Your task to perform on an android device: Go to Google maps Image 0: 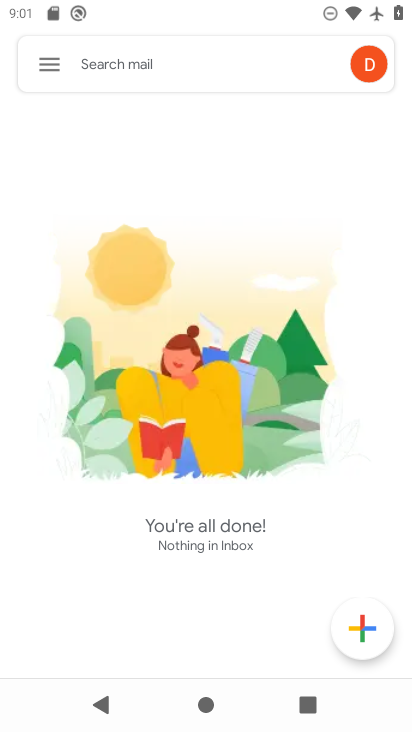
Step 0: press home button
Your task to perform on an android device: Go to Google maps Image 1: 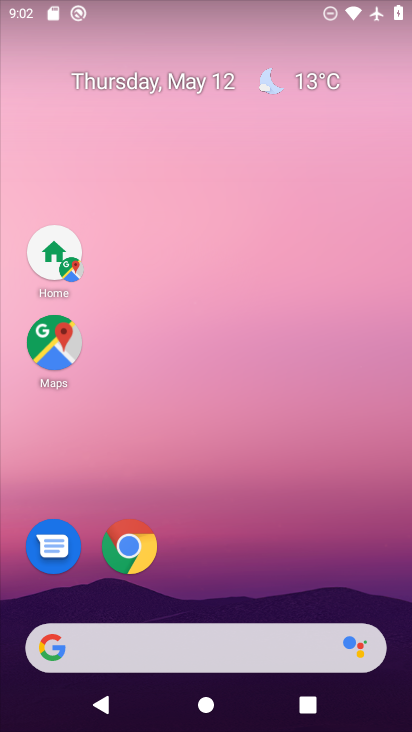
Step 1: click (56, 352)
Your task to perform on an android device: Go to Google maps Image 2: 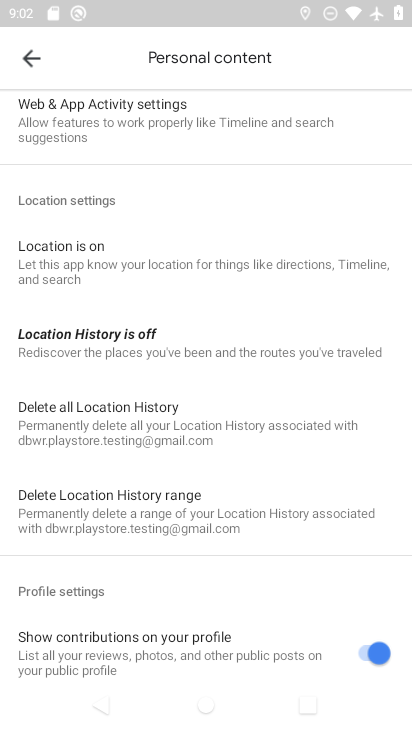
Step 2: click (34, 60)
Your task to perform on an android device: Go to Google maps Image 3: 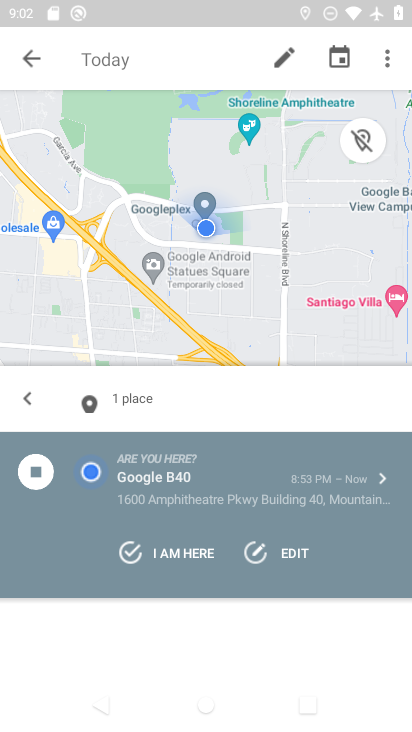
Step 3: click (33, 60)
Your task to perform on an android device: Go to Google maps Image 4: 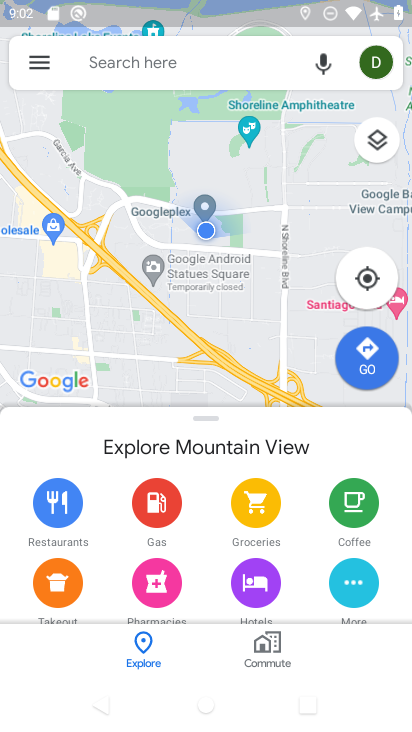
Step 4: task complete